Your task to perform on an android device: When is my next meeting? Image 0: 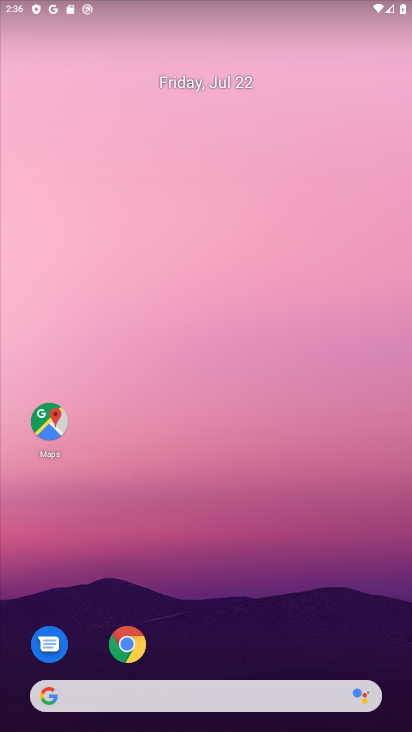
Step 0: drag from (246, 565) to (279, 273)
Your task to perform on an android device: When is my next meeting? Image 1: 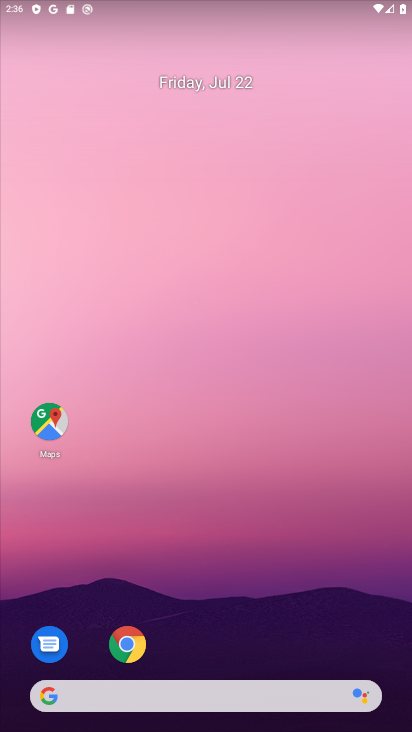
Step 1: drag from (279, 439) to (280, 211)
Your task to perform on an android device: When is my next meeting? Image 2: 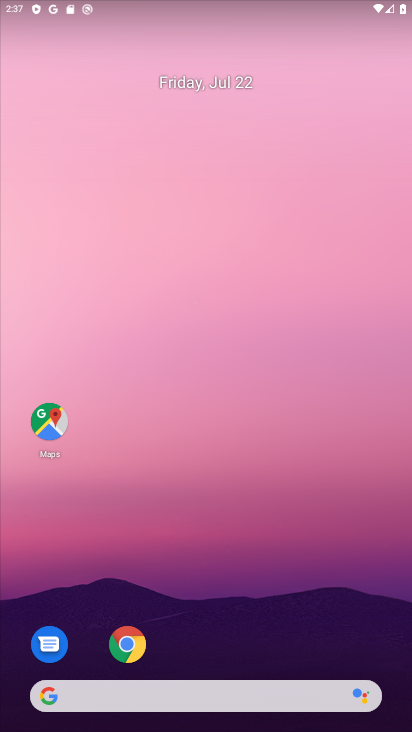
Step 2: drag from (243, 526) to (251, 217)
Your task to perform on an android device: When is my next meeting? Image 3: 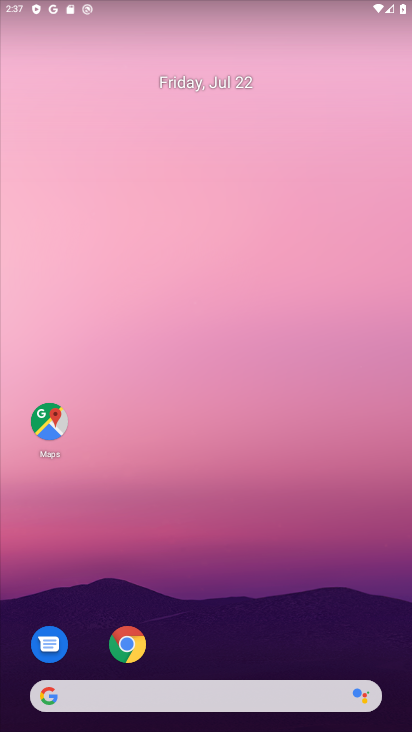
Step 3: drag from (294, 503) to (265, 157)
Your task to perform on an android device: When is my next meeting? Image 4: 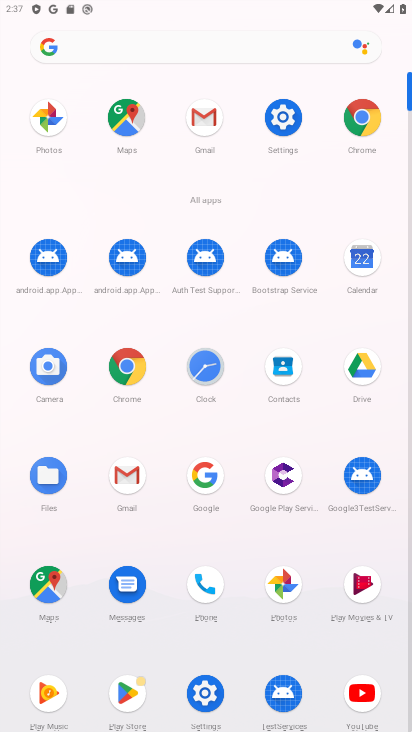
Step 4: click (364, 263)
Your task to perform on an android device: When is my next meeting? Image 5: 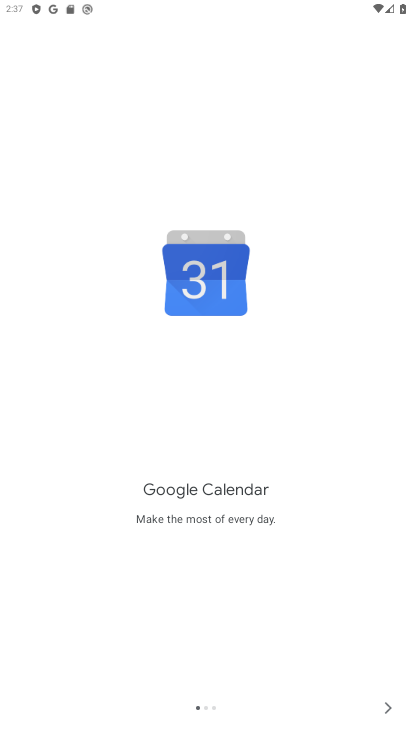
Step 5: click (383, 706)
Your task to perform on an android device: When is my next meeting? Image 6: 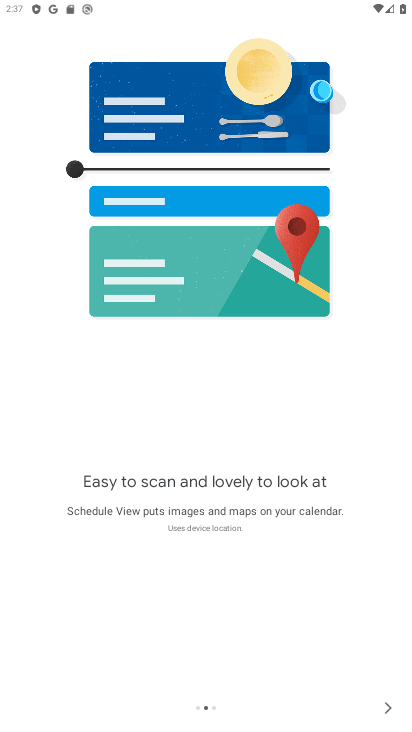
Step 6: click (390, 704)
Your task to perform on an android device: When is my next meeting? Image 7: 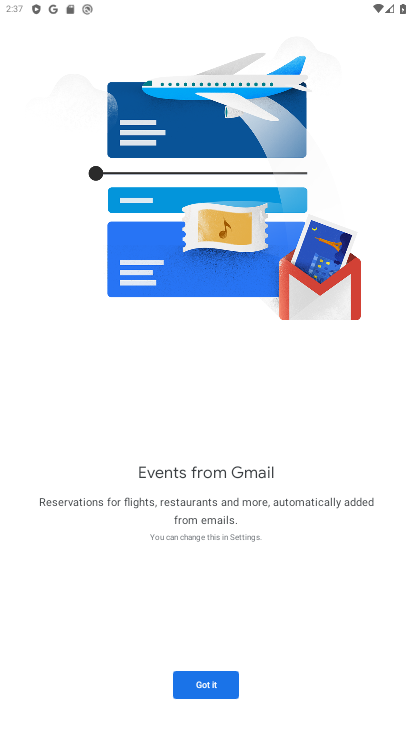
Step 7: click (215, 684)
Your task to perform on an android device: When is my next meeting? Image 8: 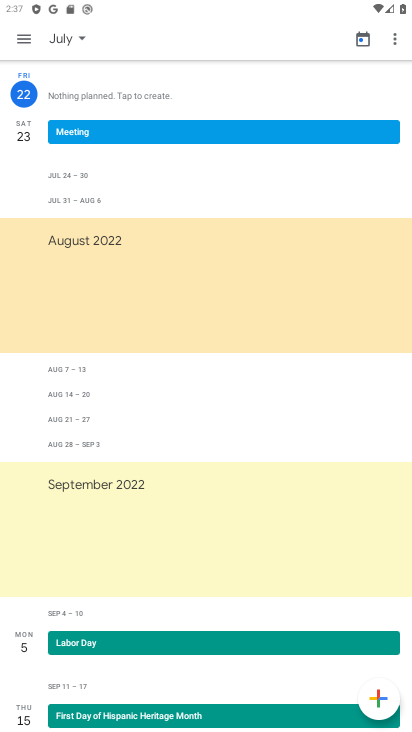
Step 8: task complete